Your task to perform on an android device: Is it going to rain tomorrow? Image 0: 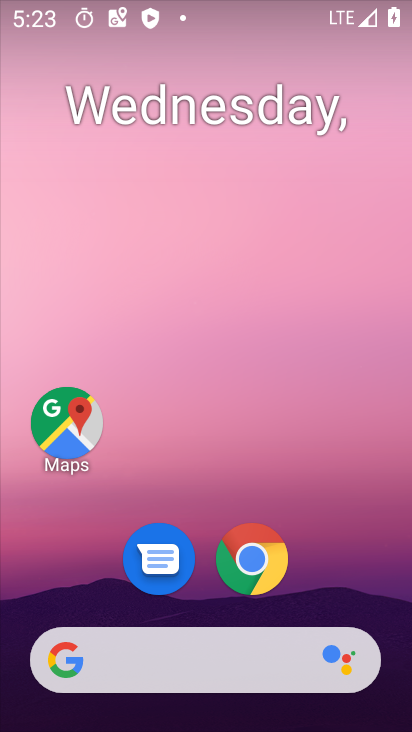
Step 0: drag from (332, 570) to (206, 0)
Your task to perform on an android device: Is it going to rain tomorrow? Image 1: 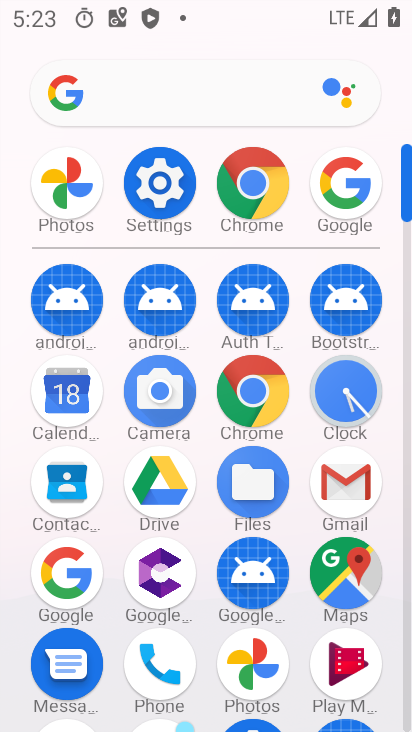
Step 1: click (65, 568)
Your task to perform on an android device: Is it going to rain tomorrow? Image 2: 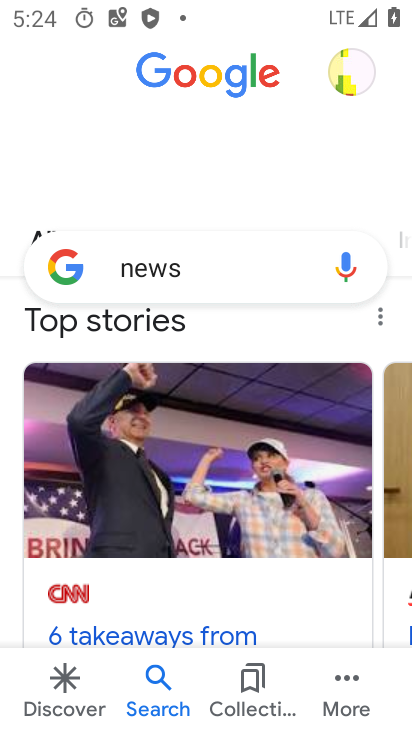
Step 2: click (210, 273)
Your task to perform on an android device: Is it going to rain tomorrow? Image 3: 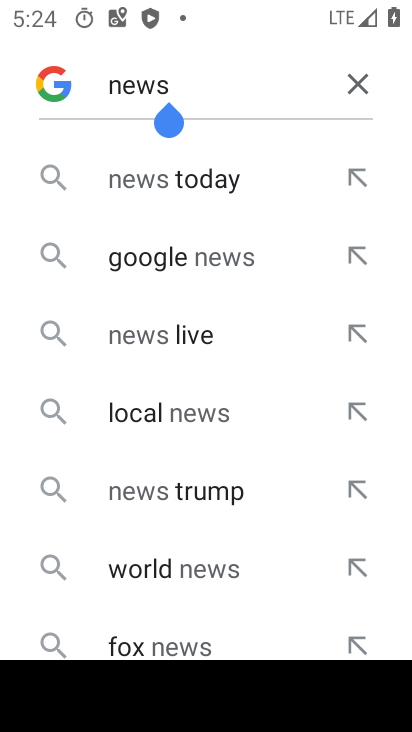
Step 3: click (351, 79)
Your task to perform on an android device: Is it going to rain tomorrow? Image 4: 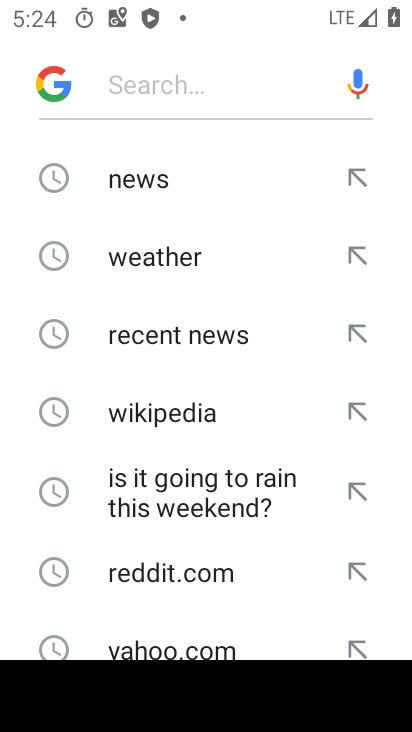
Step 4: click (172, 250)
Your task to perform on an android device: Is it going to rain tomorrow? Image 5: 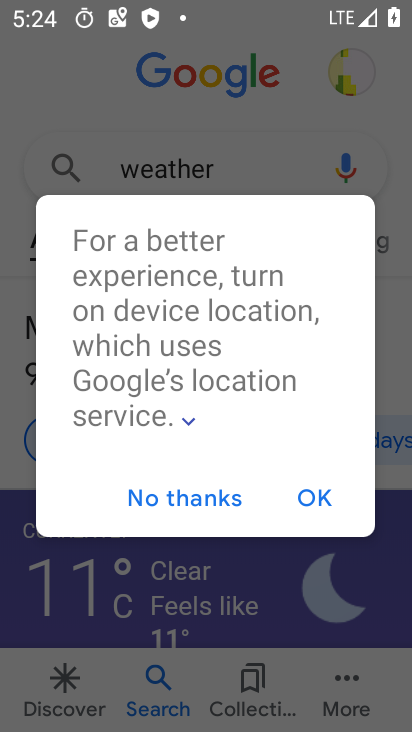
Step 5: click (224, 442)
Your task to perform on an android device: Is it going to rain tomorrow? Image 6: 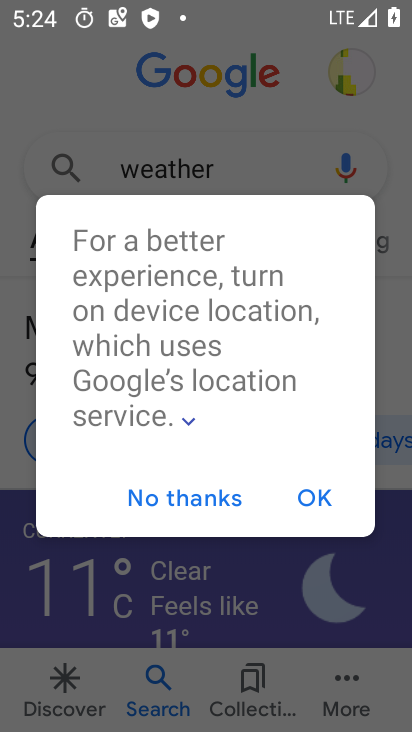
Step 6: click (210, 488)
Your task to perform on an android device: Is it going to rain tomorrow? Image 7: 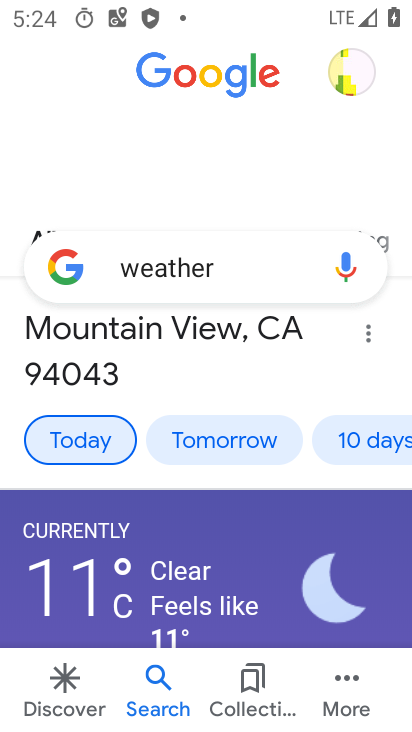
Step 7: click (218, 427)
Your task to perform on an android device: Is it going to rain tomorrow? Image 8: 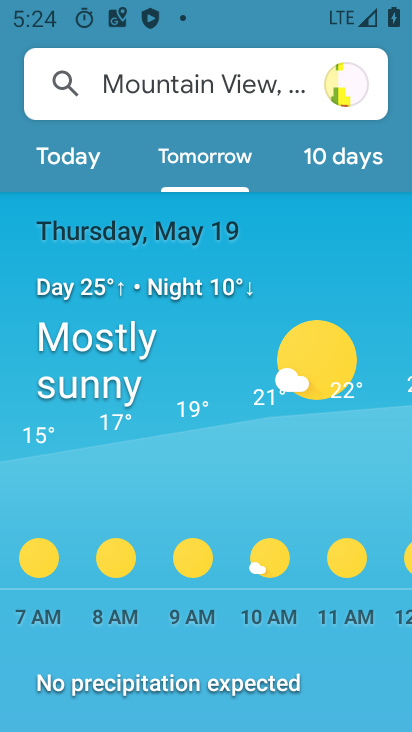
Step 8: task complete